Your task to perform on an android device: Open accessibility settings Image 0: 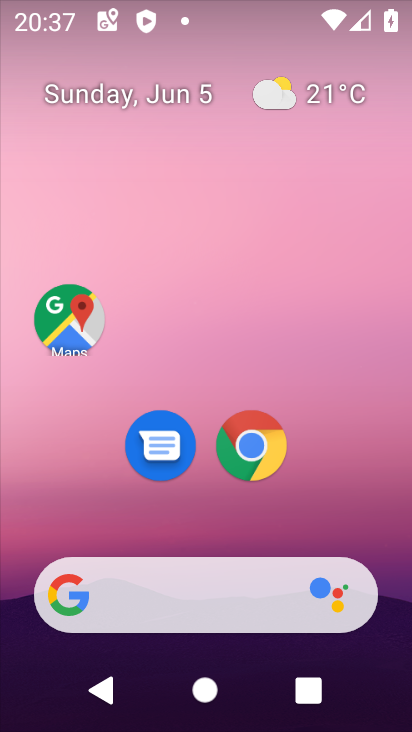
Step 0: drag from (363, 497) to (364, 81)
Your task to perform on an android device: Open accessibility settings Image 1: 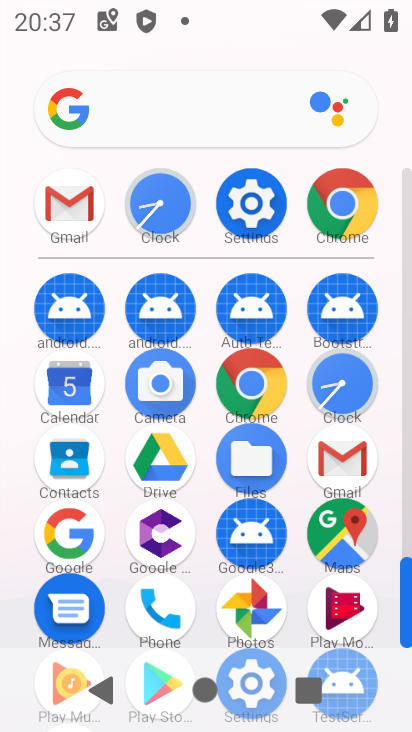
Step 1: click (248, 209)
Your task to perform on an android device: Open accessibility settings Image 2: 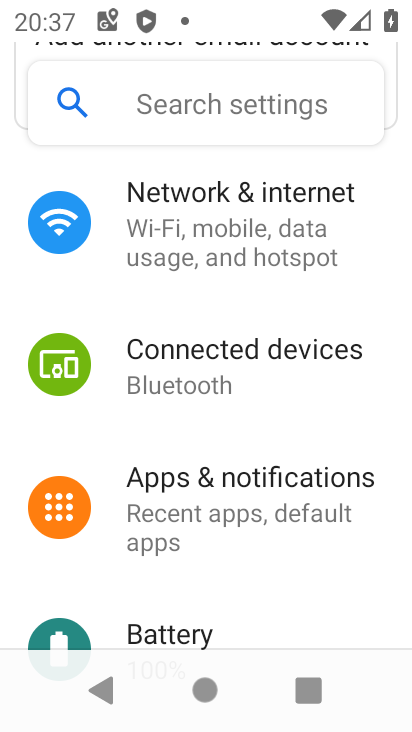
Step 2: drag from (18, 587) to (41, 271)
Your task to perform on an android device: Open accessibility settings Image 3: 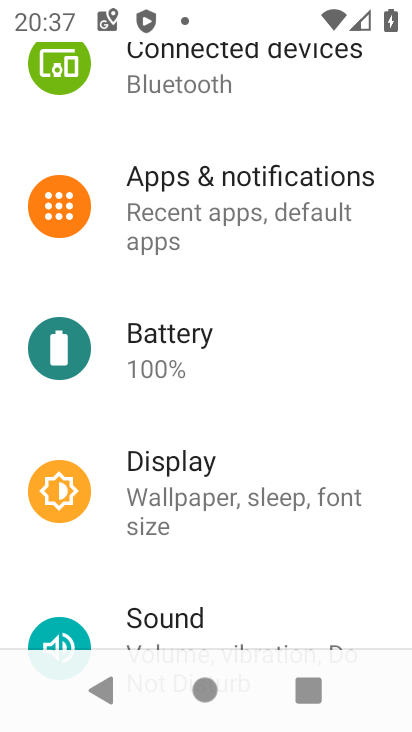
Step 3: drag from (37, 568) to (65, 276)
Your task to perform on an android device: Open accessibility settings Image 4: 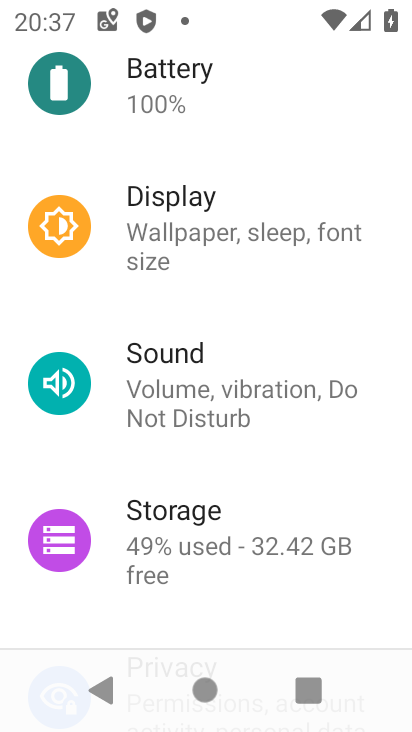
Step 4: drag from (34, 465) to (49, 255)
Your task to perform on an android device: Open accessibility settings Image 5: 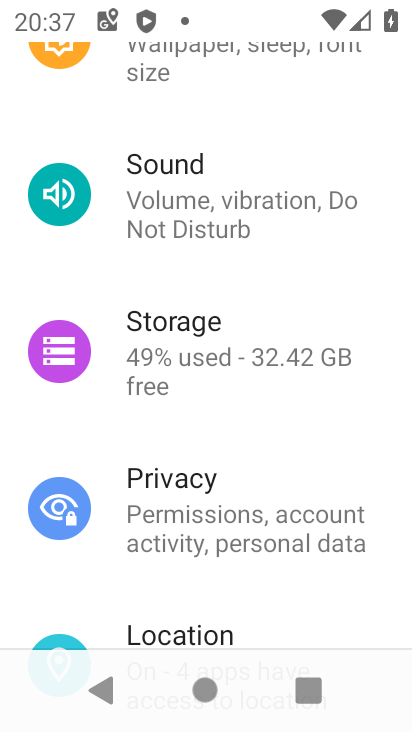
Step 5: drag from (40, 594) to (42, 278)
Your task to perform on an android device: Open accessibility settings Image 6: 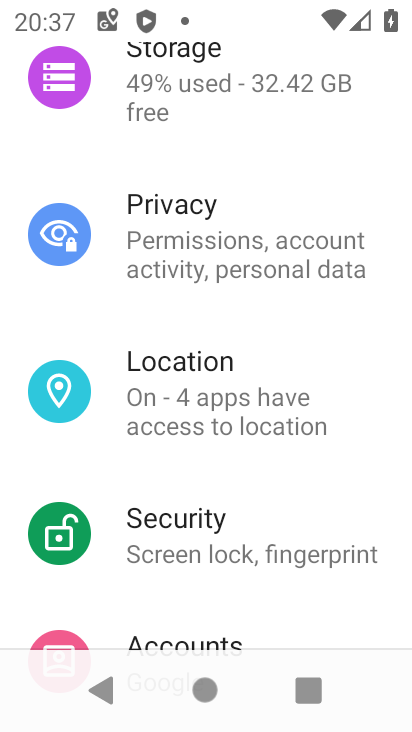
Step 6: drag from (39, 601) to (45, 265)
Your task to perform on an android device: Open accessibility settings Image 7: 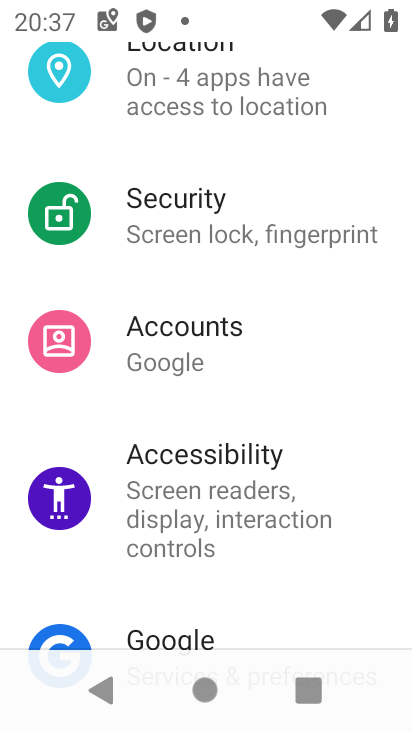
Step 7: click (219, 497)
Your task to perform on an android device: Open accessibility settings Image 8: 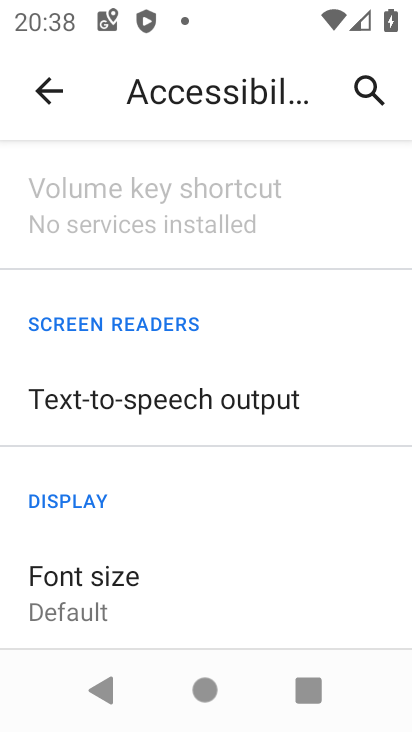
Step 8: task complete